Your task to perform on an android device: empty trash in google photos Image 0: 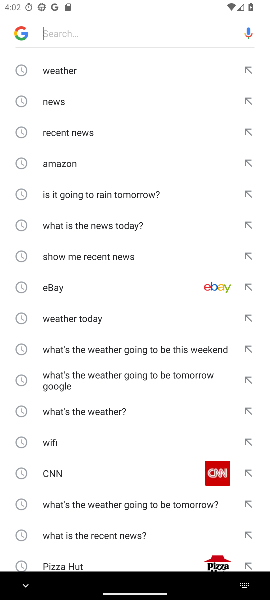
Step 0: press home button
Your task to perform on an android device: empty trash in google photos Image 1: 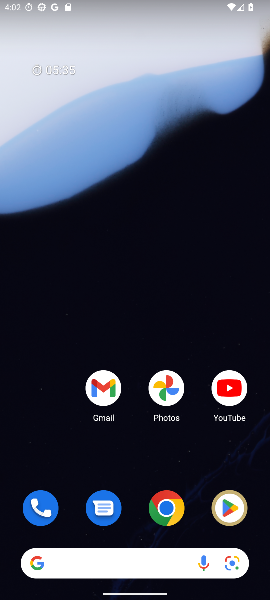
Step 1: drag from (100, 544) to (184, 92)
Your task to perform on an android device: empty trash in google photos Image 2: 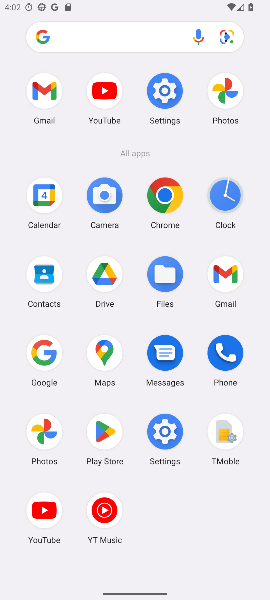
Step 2: click (51, 427)
Your task to perform on an android device: empty trash in google photos Image 3: 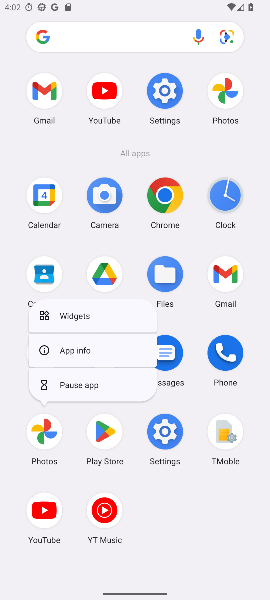
Step 3: click (87, 356)
Your task to perform on an android device: empty trash in google photos Image 4: 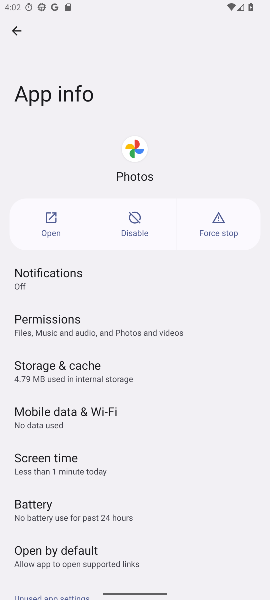
Step 4: click (42, 221)
Your task to perform on an android device: empty trash in google photos Image 5: 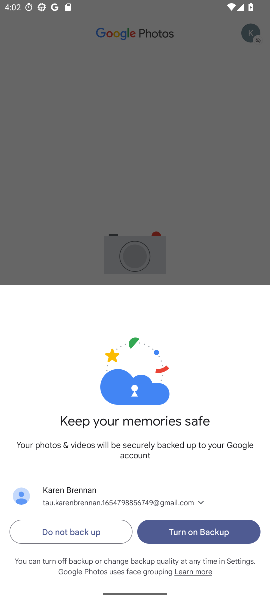
Step 5: click (161, 535)
Your task to perform on an android device: empty trash in google photos Image 6: 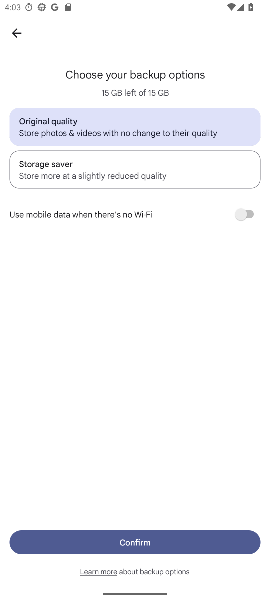
Step 6: click (134, 540)
Your task to perform on an android device: empty trash in google photos Image 7: 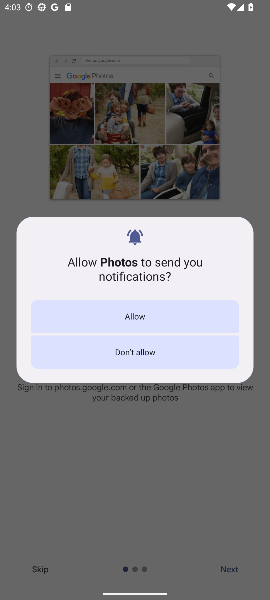
Step 7: click (143, 315)
Your task to perform on an android device: empty trash in google photos Image 8: 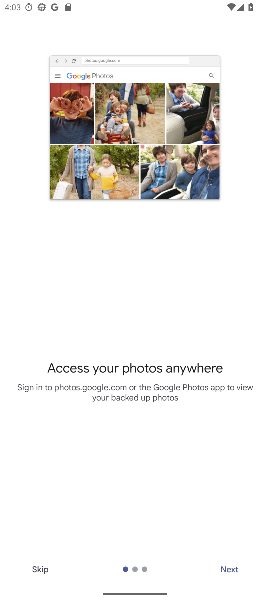
Step 8: click (40, 572)
Your task to perform on an android device: empty trash in google photos Image 9: 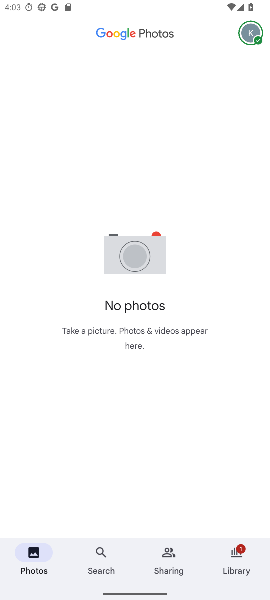
Step 9: drag from (153, 501) to (153, 262)
Your task to perform on an android device: empty trash in google photos Image 10: 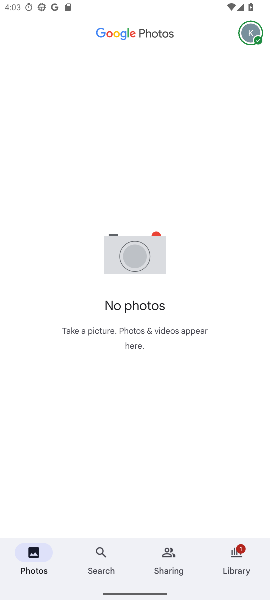
Step 10: click (231, 544)
Your task to perform on an android device: empty trash in google photos Image 11: 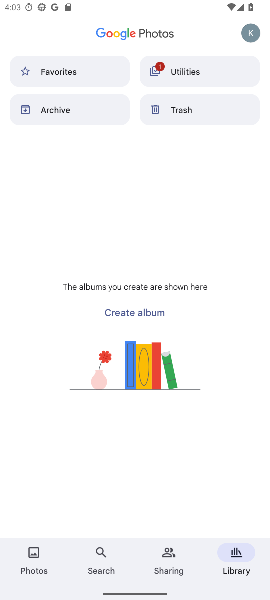
Step 11: click (179, 99)
Your task to perform on an android device: empty trash in google photos Image 12: 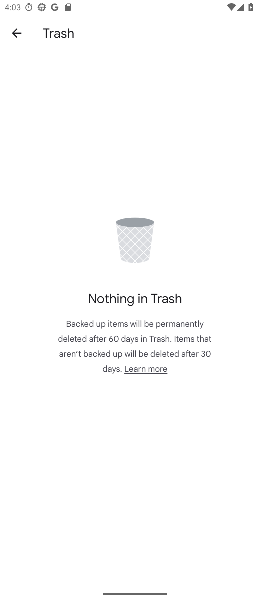
Step 12: task complete